Your task to perform on an android device: Search for razer deathadder on walmart.com, select the first entry, add it to the cart, then select checkout. Image 0: 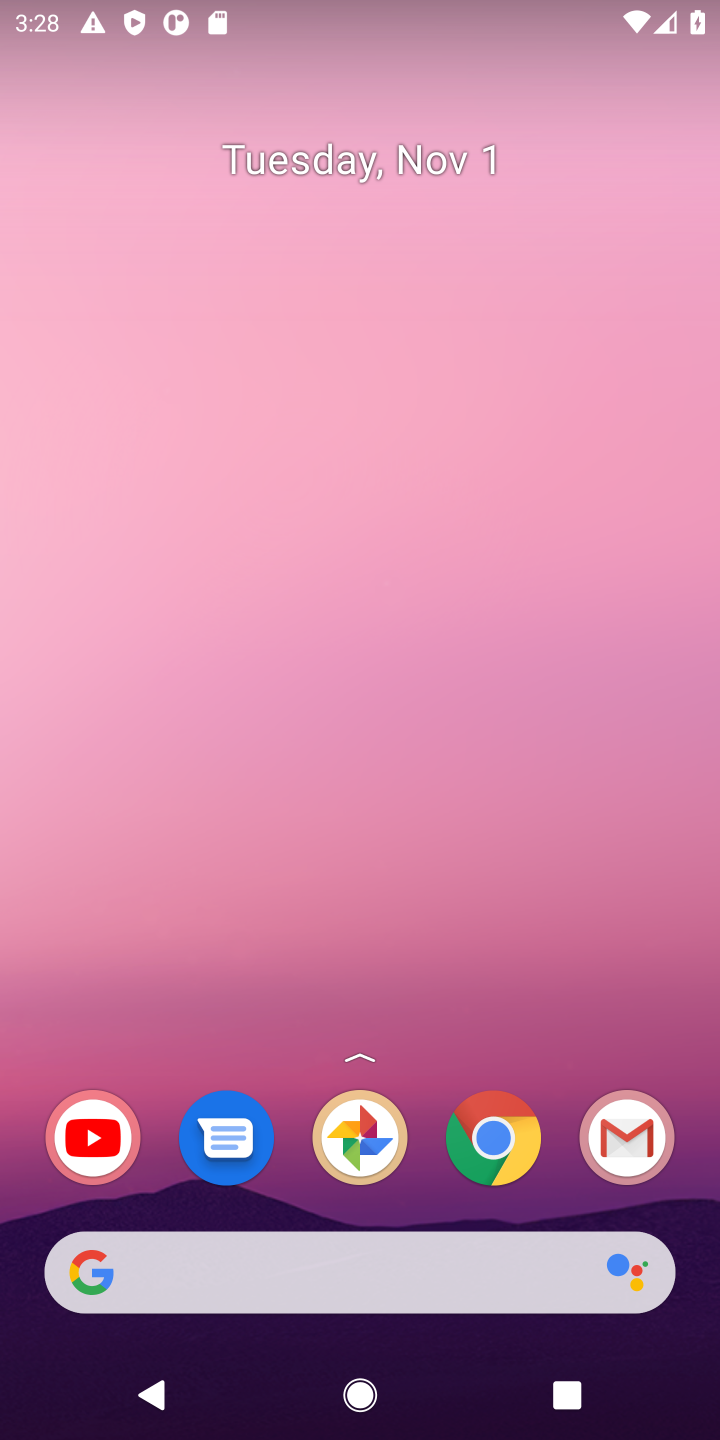
Step 0: click (504, 1145)
Your task to perform on an android device: Search for razer deathadder on walmart.com, select the first entry, add it to the cart, then select checkout. Image 1: 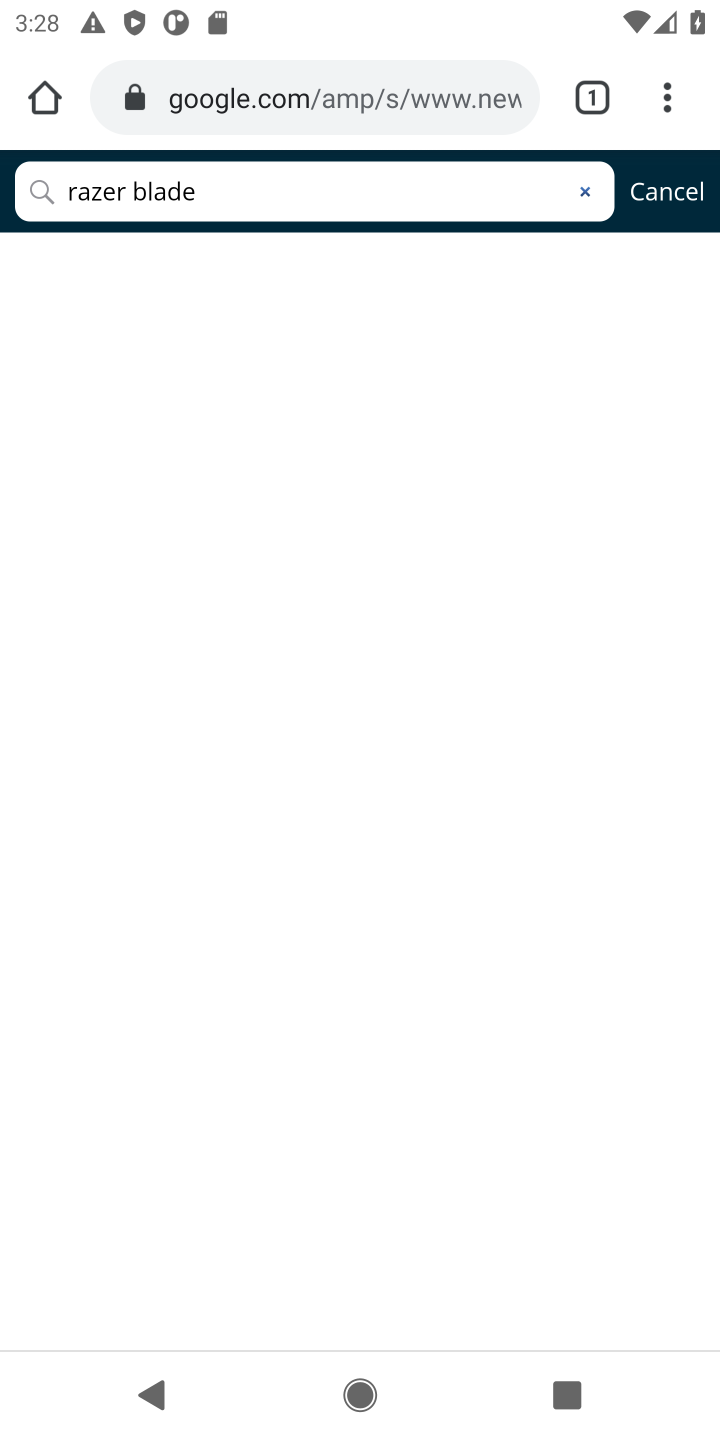
Step 1: click (242, 99)
Your task to perform on an android device: Search for razer deathadder on walmart.com, select the first entry, add it to the cart, then select checkout. Image 2: 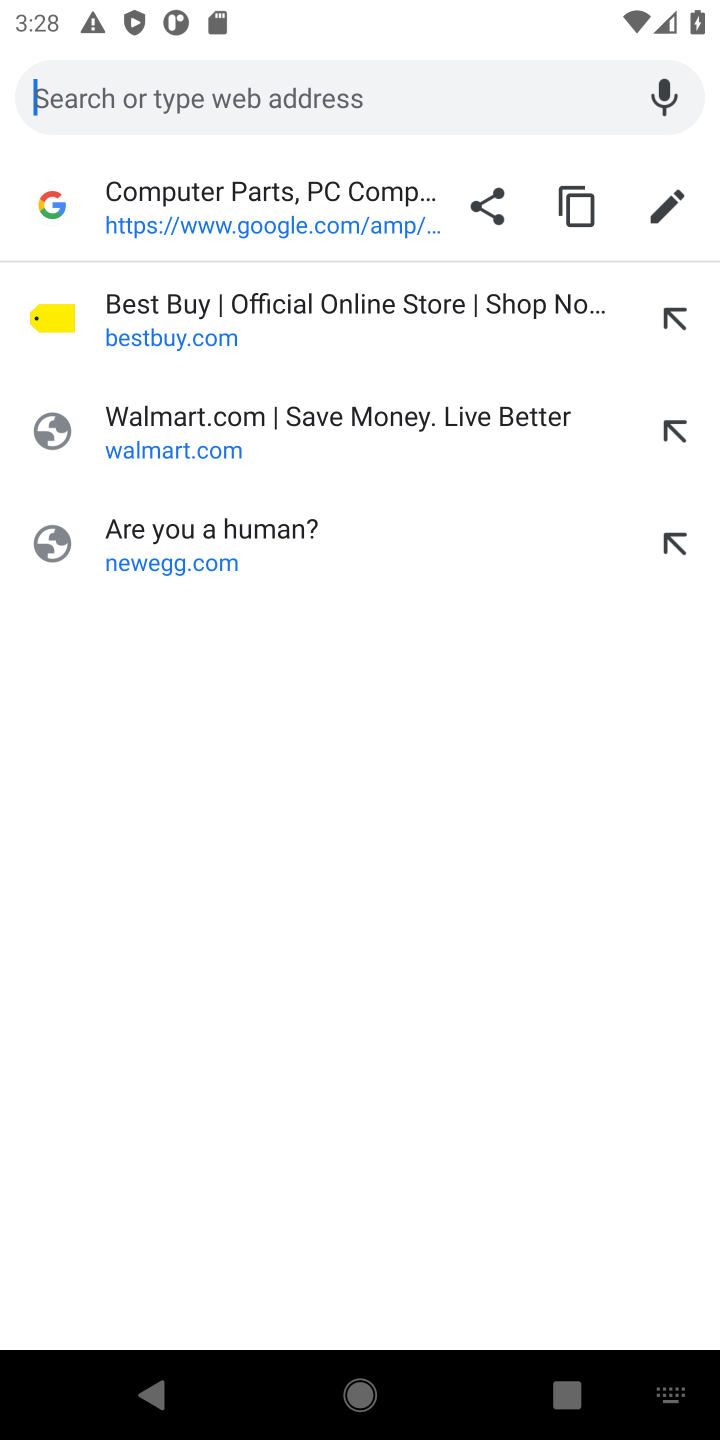
Step 2: type "walmart.com"
Your task to perform on an android device: Search for razer deathadder on walmart.com, select the first entry, add it to the cart, then select checkout. Image 3: 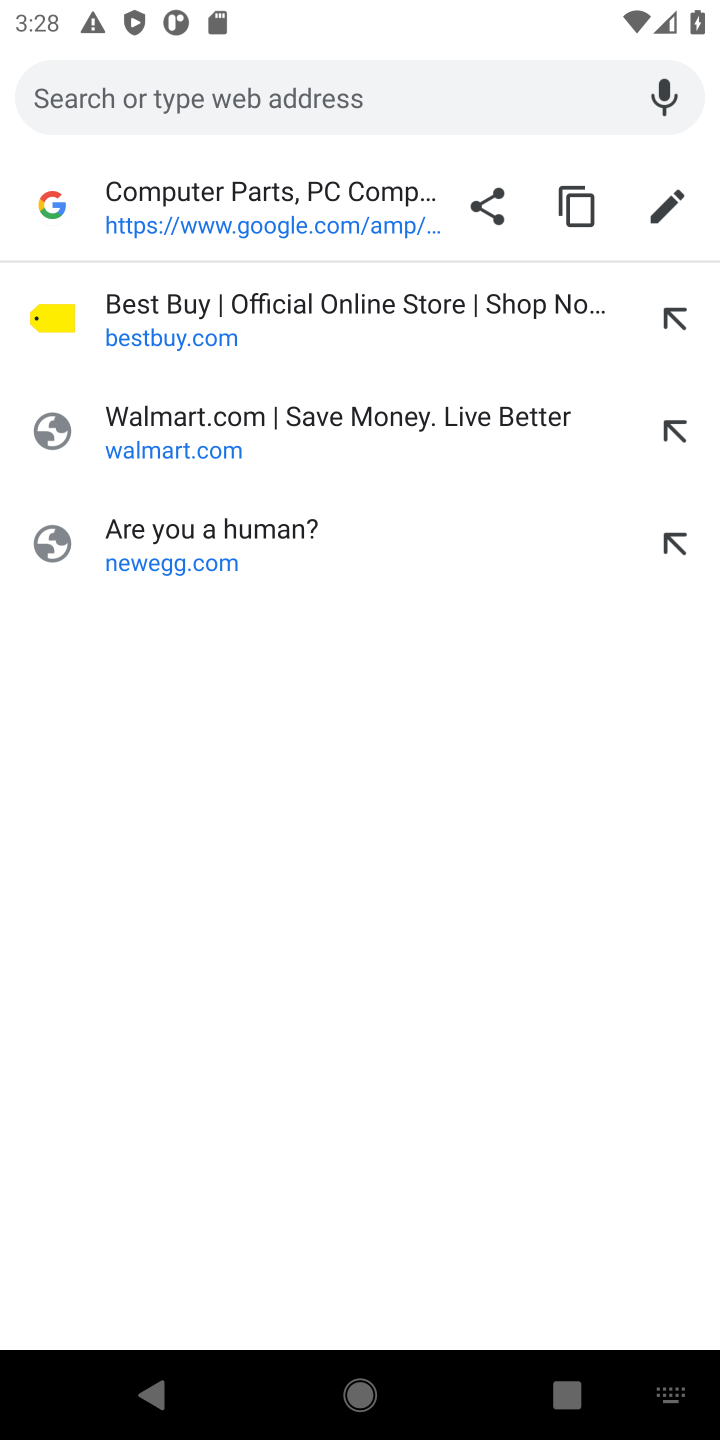
Step 3: click (310, 90)
Your task to perform on an android device: Search for razer deathadder on walmart.com, select the first entry, add it to the cart, then select checkout. Image 4: 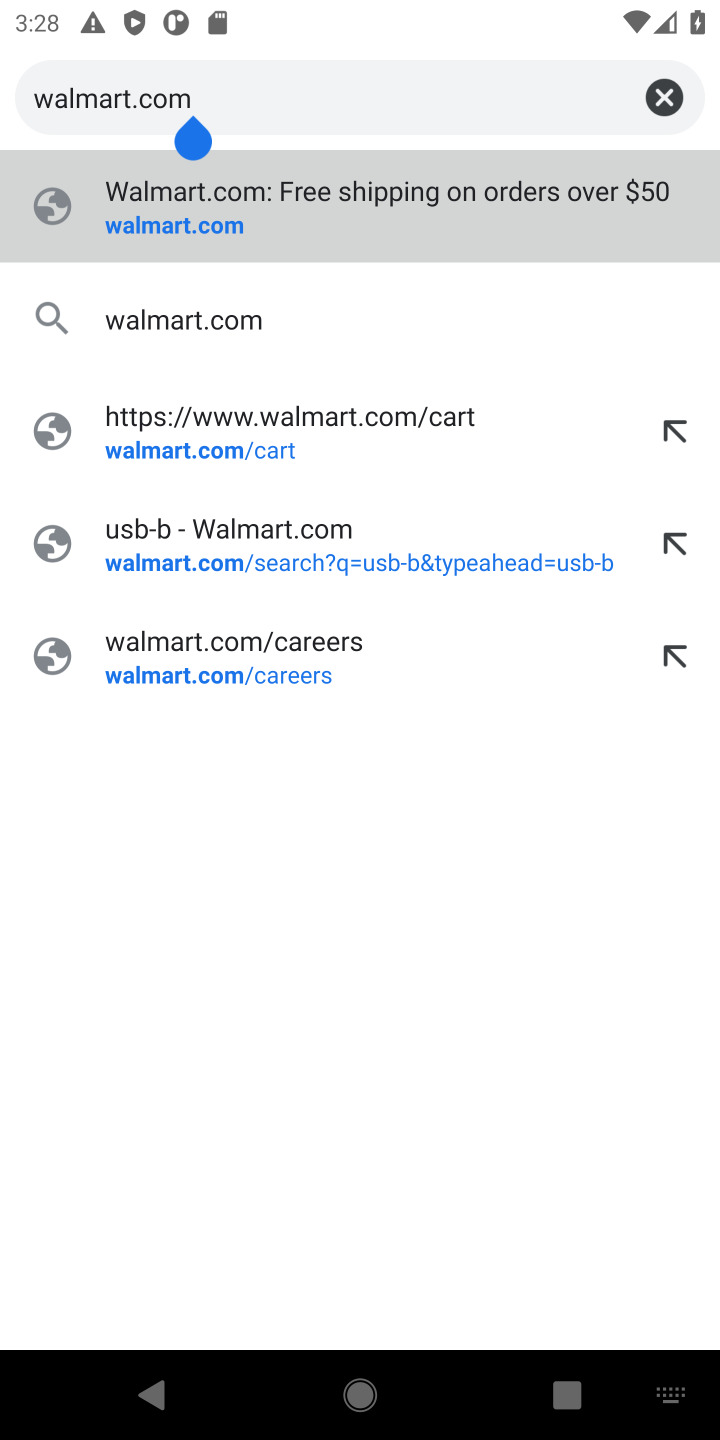
Step 4: click (168, 226)
Your task to perform on an android device: Search for razer deathadder on walmart.com, select the first entry, add it to the cart, then select checkout. Image 5: 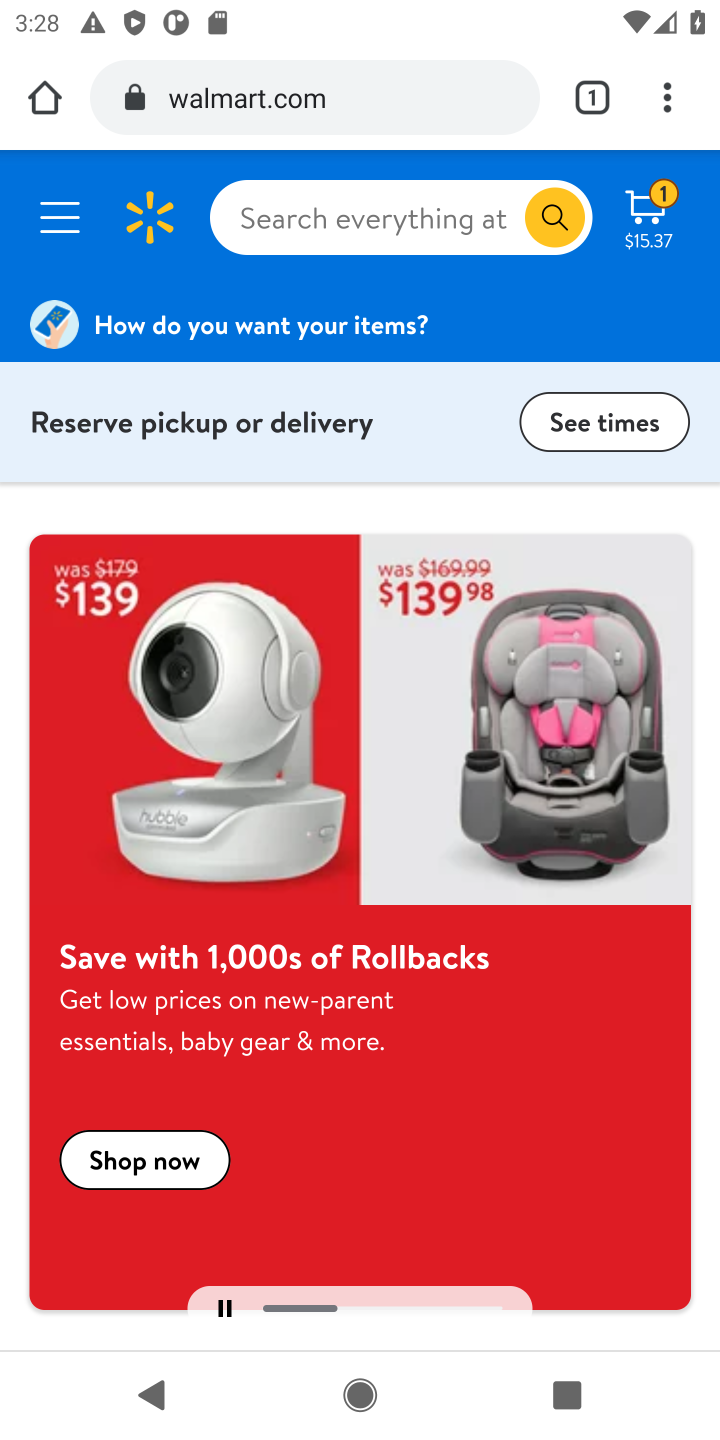
Step 5: click (346, 205)
Your task to perform on an android device: Search for razer deathadder on walmart.com, select the first entry, add it to the cart, then select checkout. Image 6: 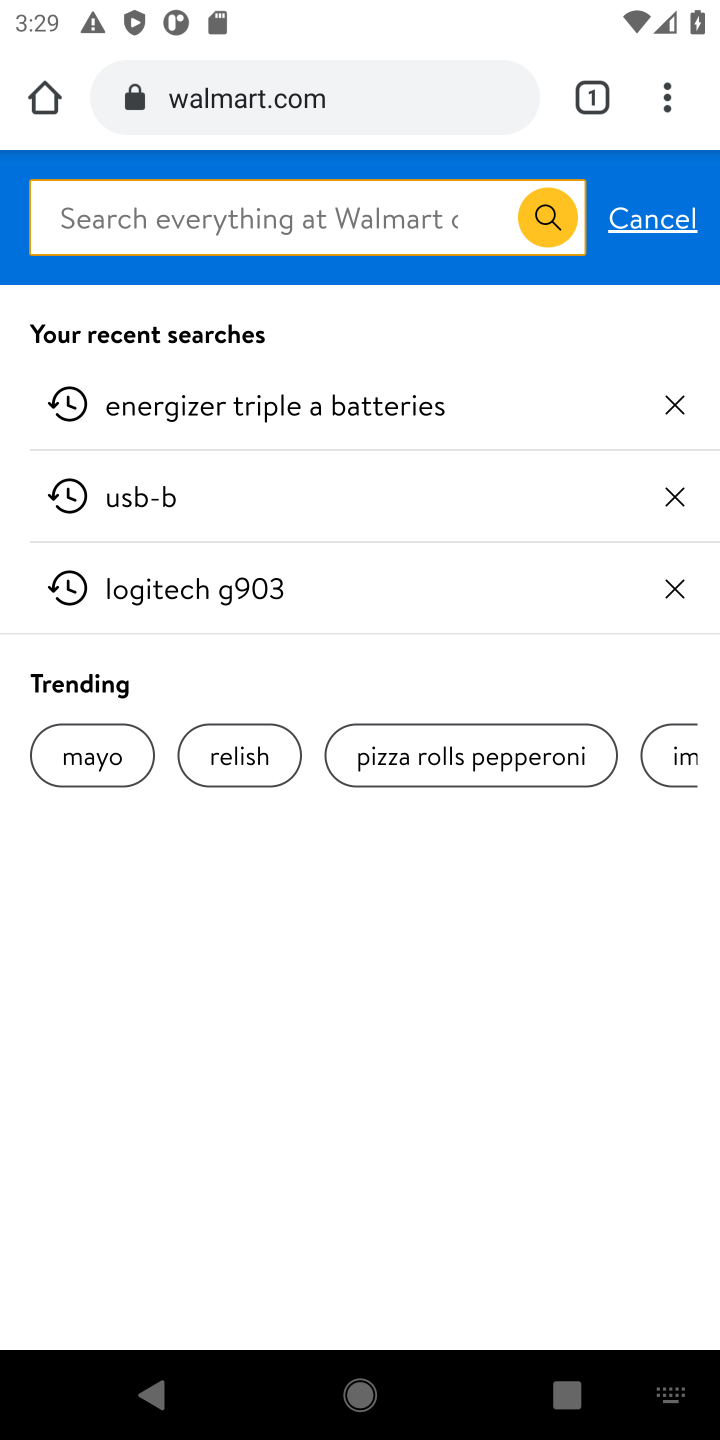
Step 6: type "razer deathadder"
Your task to perform on an android device: Search for razer deathadder on walmart.com, select the first entry, add it to the cart, then select checkout. Image 7: 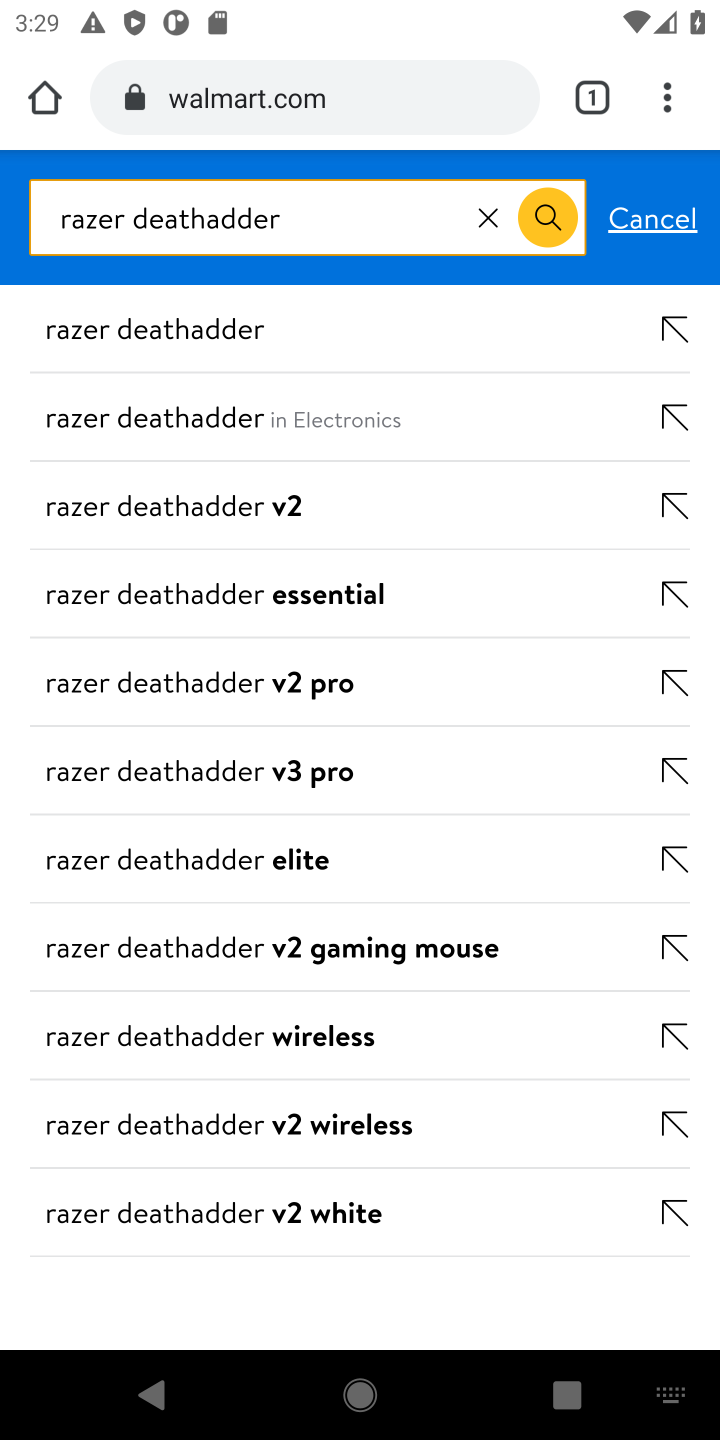
Step 7: click (554, 214)
Your task to perform on an android device: Search for razer deathadder on walmart.com, select the first entry, add it to the cart, then select checkout. Image 8: 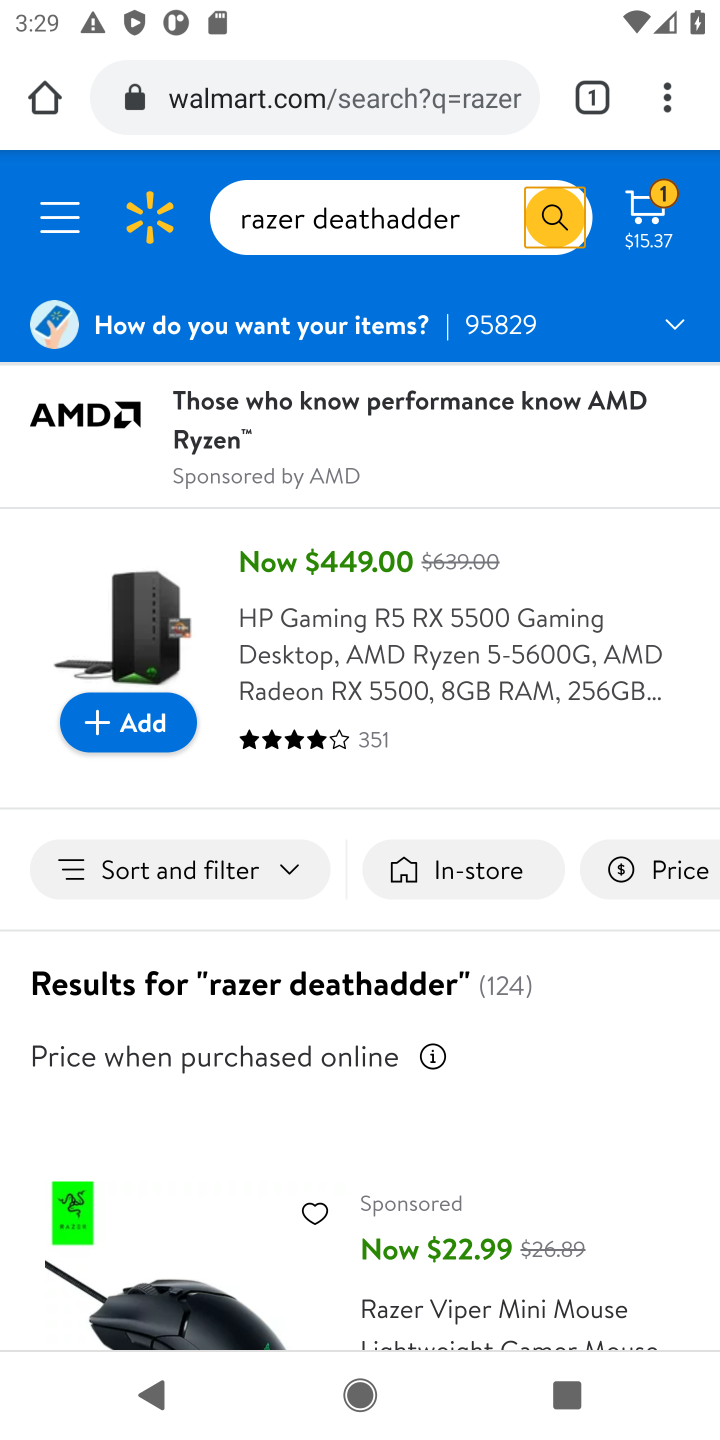
Step 8: click (453, 1231)
Your task to perform on an android device: Search for razer deathadder on walmart.com, select the first entry, add it to the cart, then select checkout. Image 9: 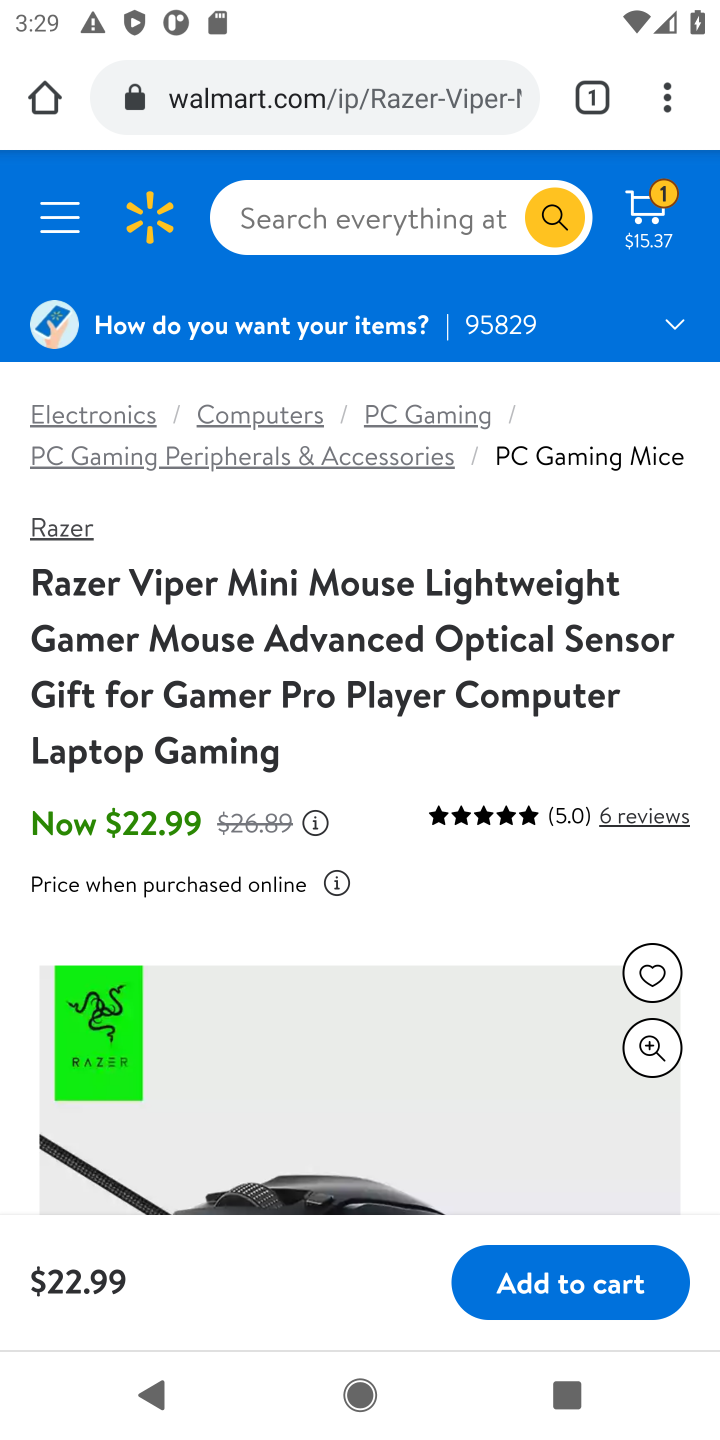
Step 9: click (577, 1280)
Your task to perform on an android device: Search for razer deathadder on walmart.com, select the first entry, add it to the cart, then select checkout. Image 10: 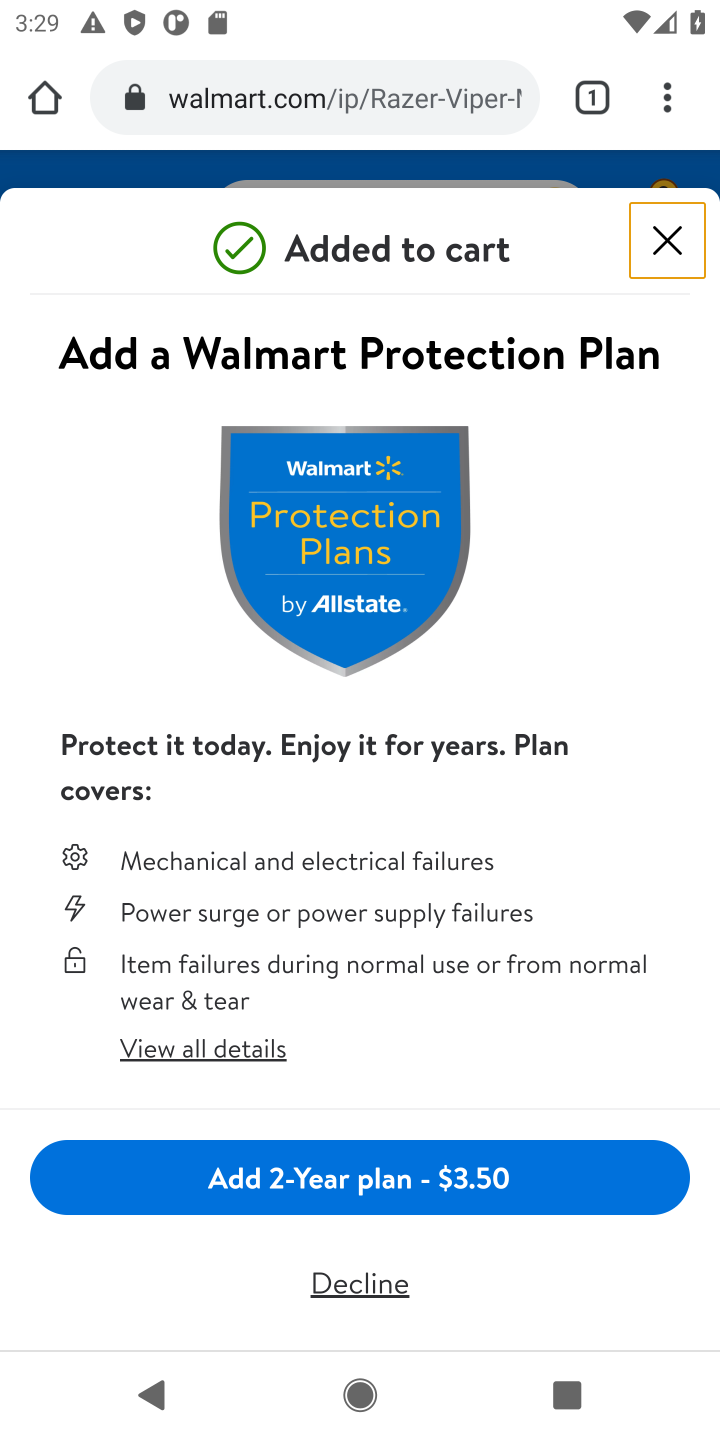
Step 10: click (364, 1294)
Your task to perform on an android device: Search for razer deathadder on walmart.com, select the first entry, add it to the cart, then select checkout. Image 11: 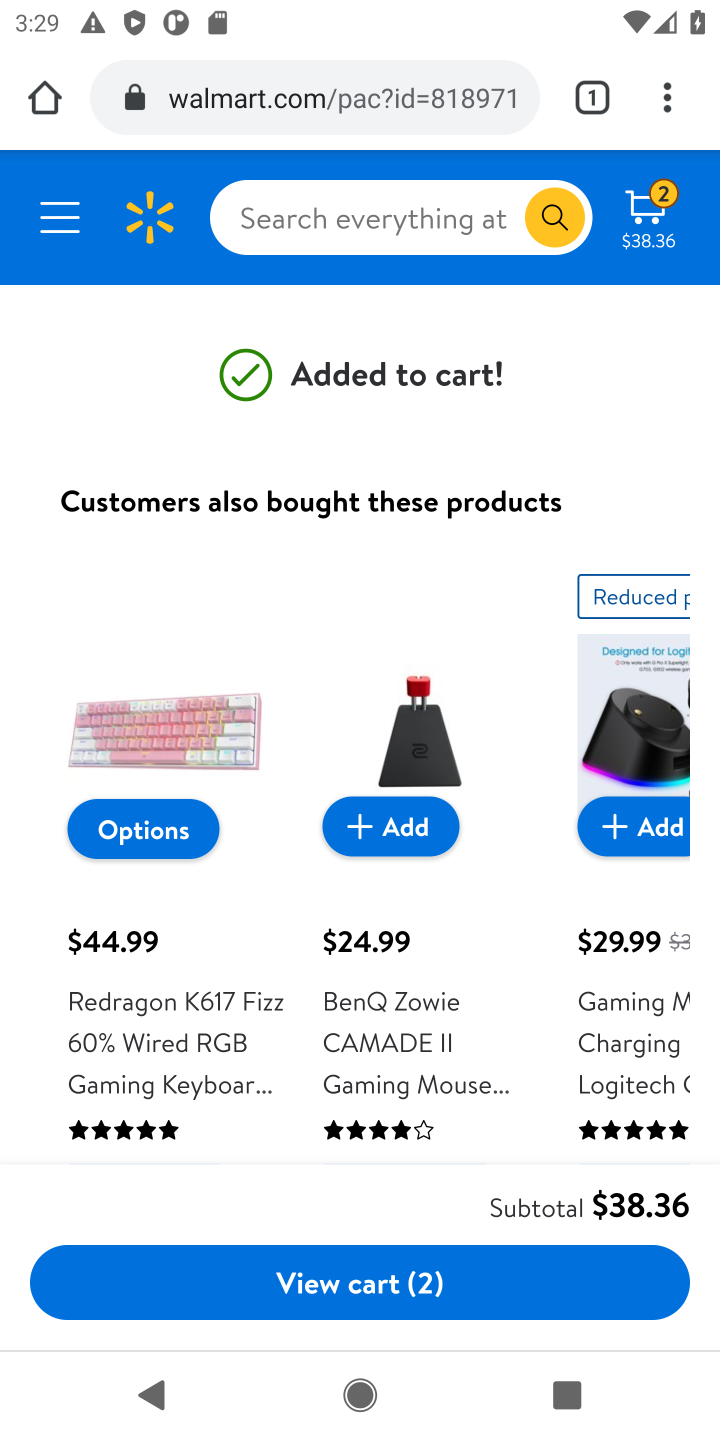
Step 11: click (659, 205)
Your task to perform on an android device: Search for razer deathadder on walmart.com, select the first entry, add it to the cart, then select checkout. Image 12: 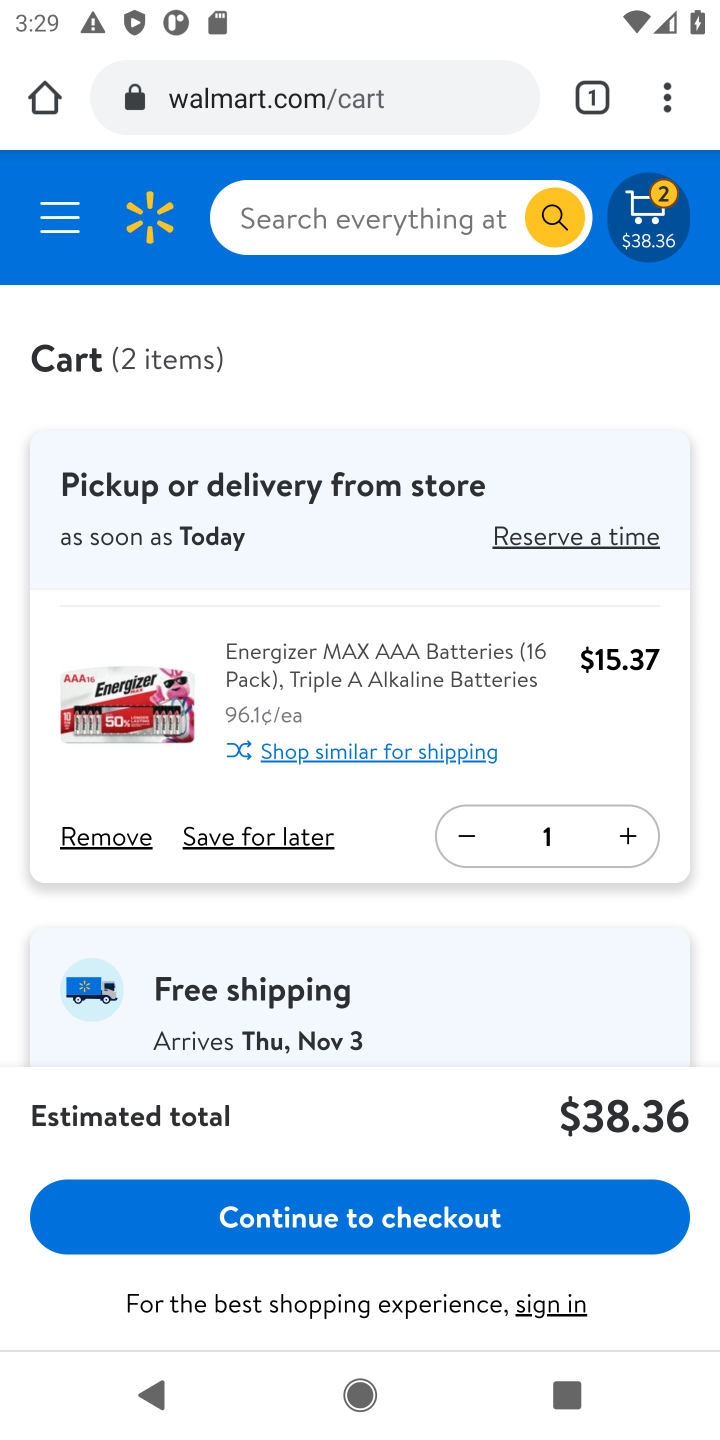
Step 12: click (329, 1217)
Your task to perform on an android device: Search for razer deathadder on walmart.com, select the first entry, add it to the cart, then select checkout. Image 13: 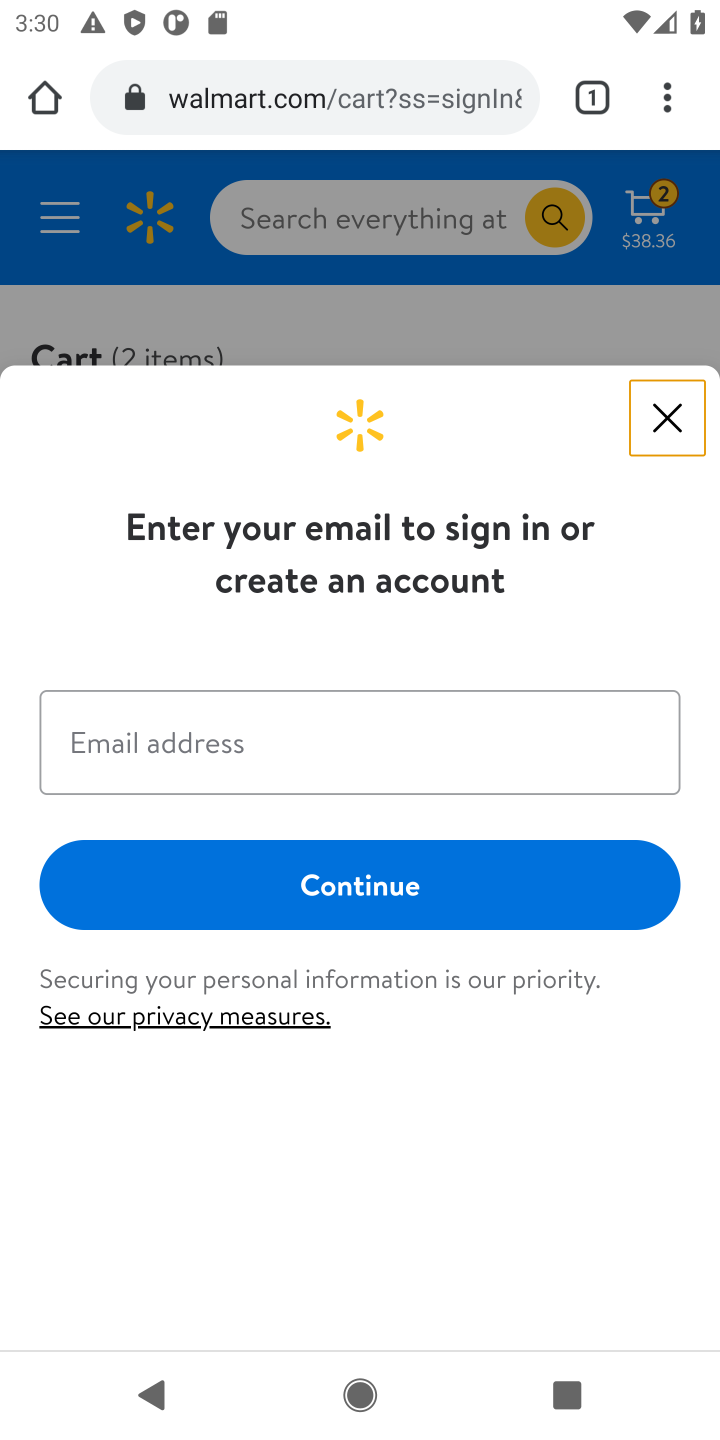
Step 13: task complete